Your task to perform on an android device: turn on airplane mode Image 0: 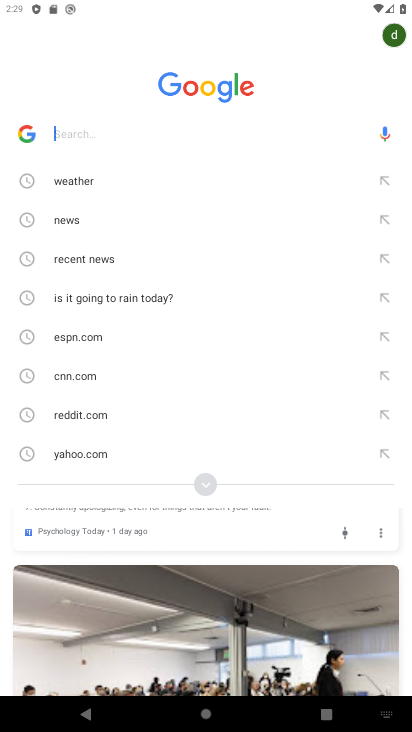
Step 0: press home button
Your task to perform on an android device: turn on airplane mode Image 1: 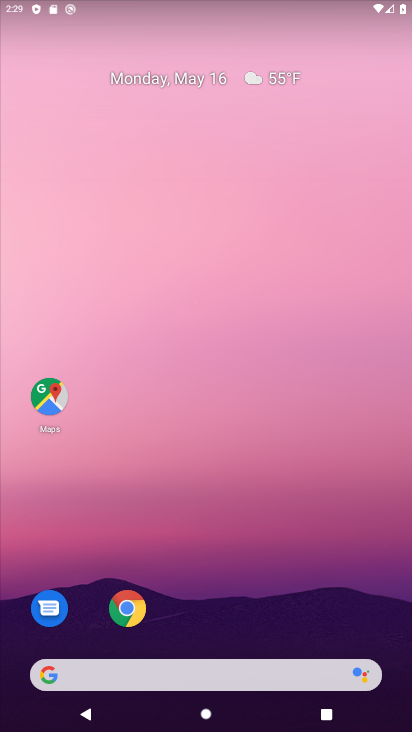
Step 1: drag from (206, 616) to (159, 151)
Your task to perform on an android device: turn on airplane mode Image 2: 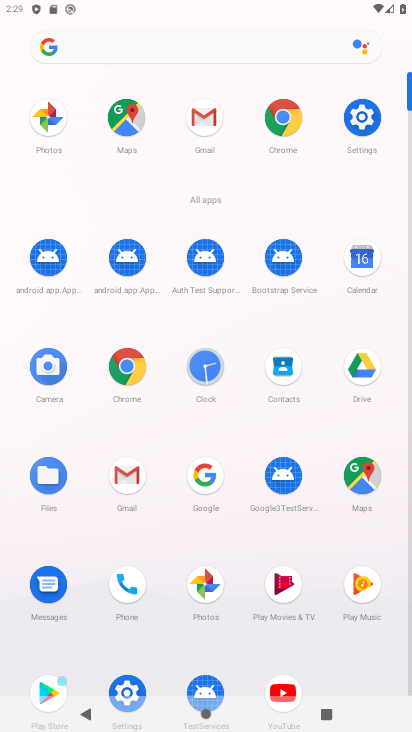
Step 2: click (353, 120)
Your task to perform on an android device: turn on airplane mode Image 3: 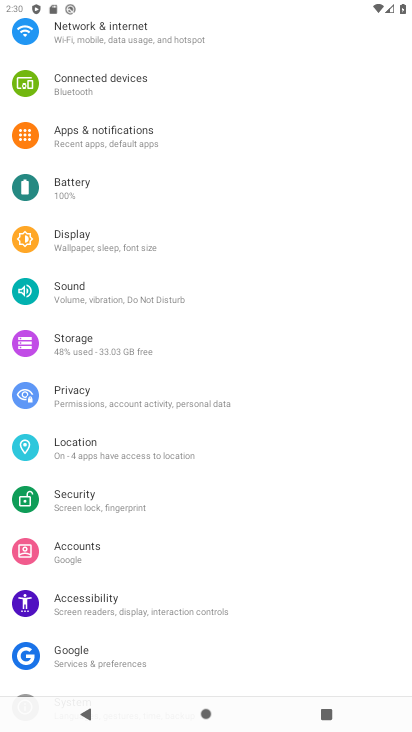
Step 3: drag from (196, 131) to (220, 471)
Your task to perform on an android device: turn on airplane mode Image 4: 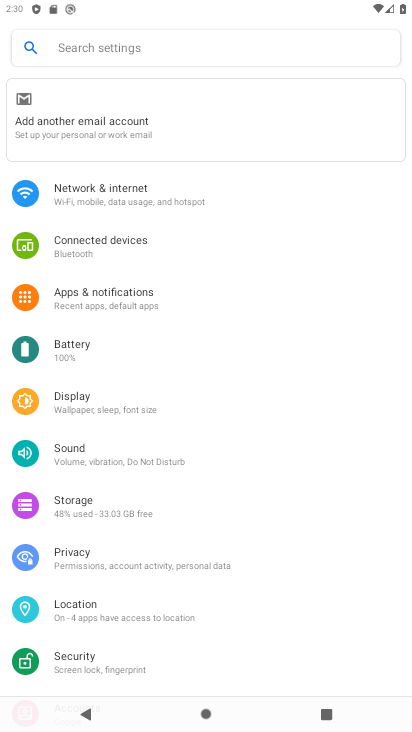
Step 4: click (131, 202)
Your task to perform on an android device: turn on airplane mode Image 5: 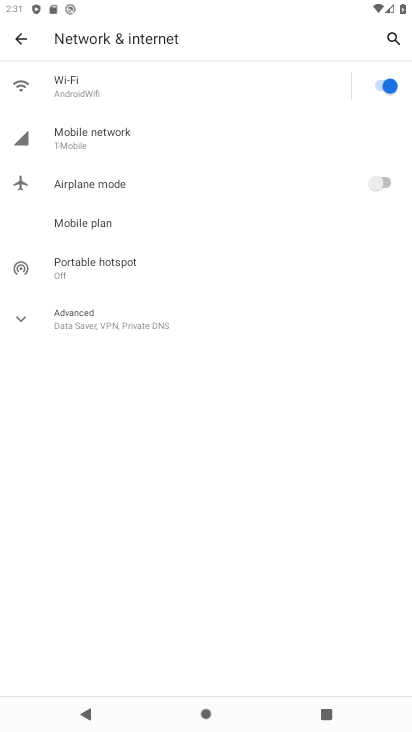
Step 5: click (387, 181)
Your task to perform on an android device: turn on airplane mode Image 6: 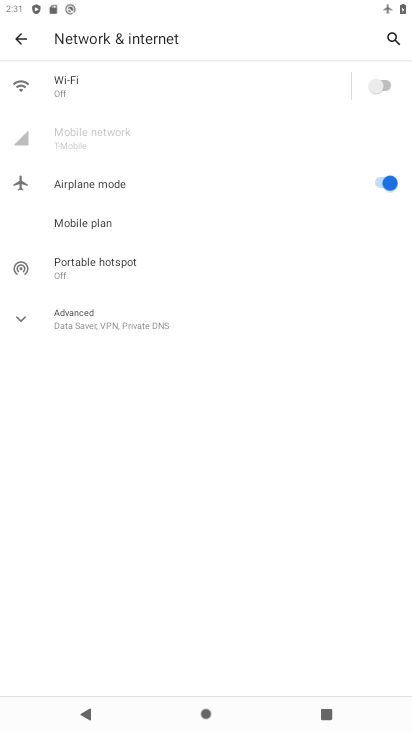
Step 6: task complete